Your task to perform on an android device: change the clock display to show seconds Image 0: 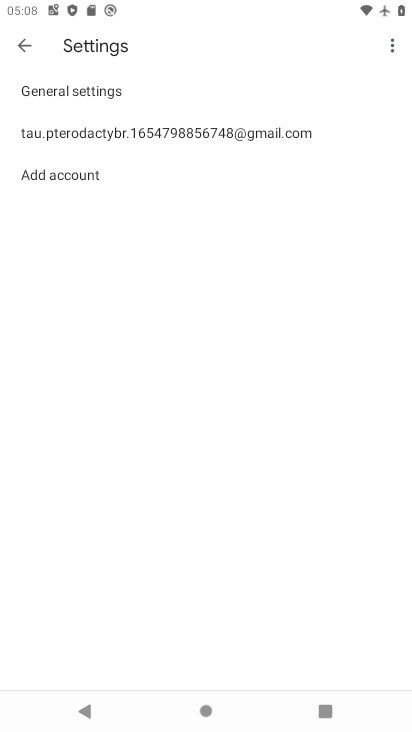
Step 0: press home button
Your task to perform on an android device: change the clock display to show seconds Image 1: 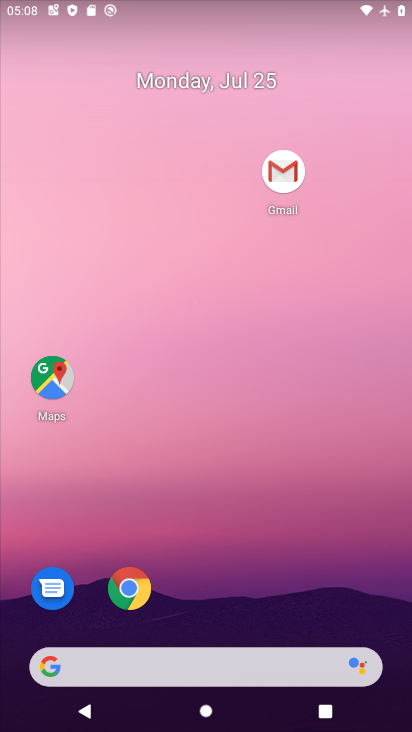
Step 1: drag from (270, 543) to (170, 68)
Your task to perform on an android device: change the clock display to show seconds Image 2: 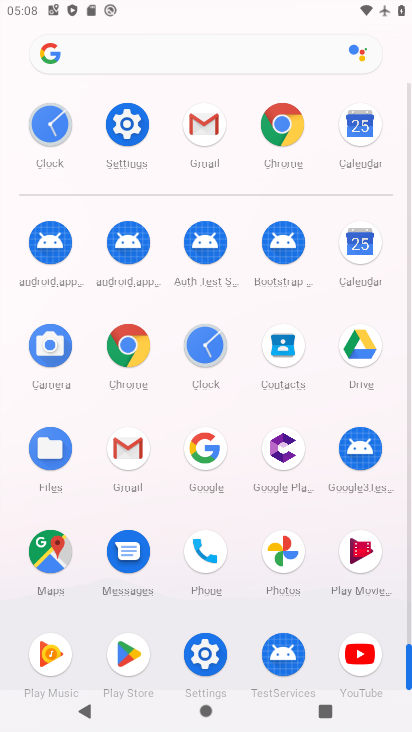
Step 2: click (198, 347)
Your task to perform on an android device: change the clock display to show seconds Image 3: 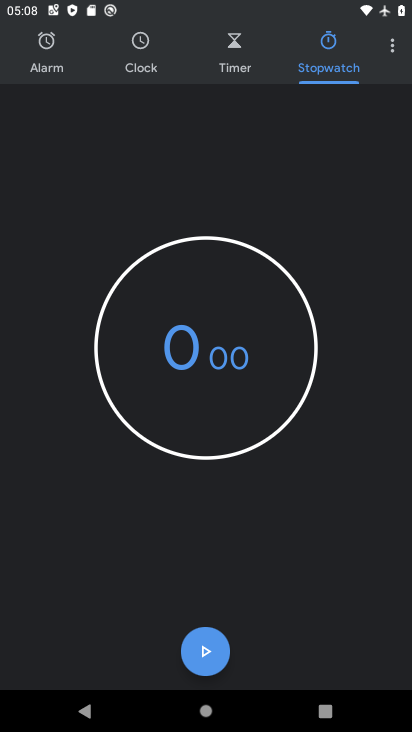
Step 3: click (393, 38)
Your task to perform on an android device: change the clock display to show seconds Image 4: 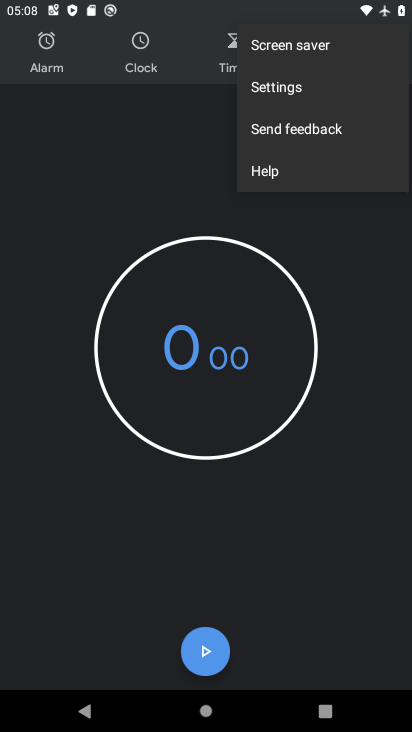
Step 4: click (284, 91)
Your task to perform on an android device: change the clock display to show seconds Image 5: 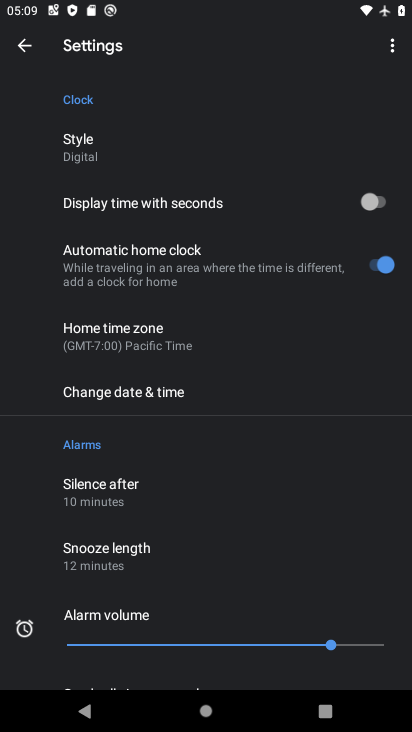
Step 5: click (373, 213)
Your task to perform on an android device: change the clock display to show seconds Image 6: 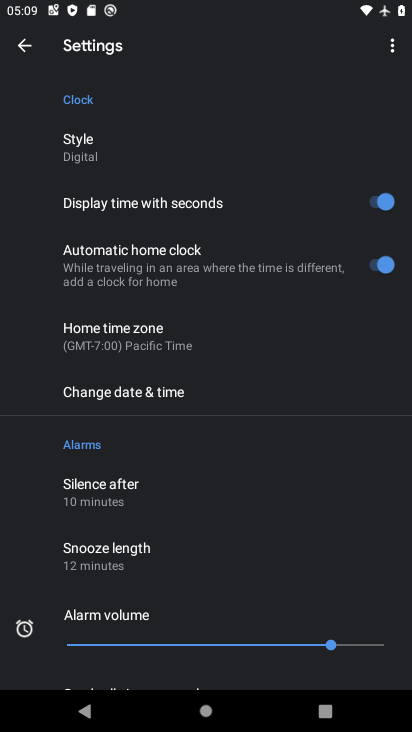
Step 6: task complete